Your task to perform on an android device: delete the emails in spam in the gmail app Image 0: 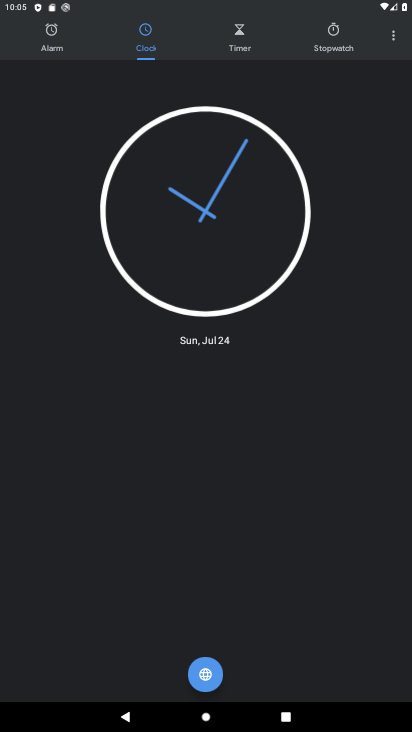
Step 0: press home button
Your task to perform on an android device: delete the emails in spam in the gmail app Image 1: 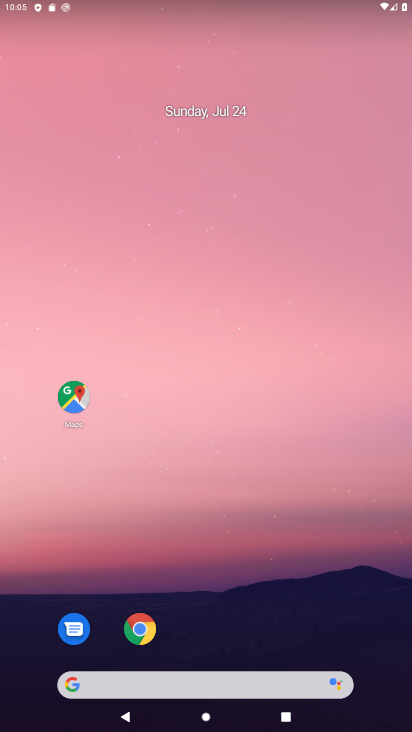
Step 1: drag from (203, 685) to (210, 115)
Your task to perform on an android device: delete the emails in spam in the gmail app Image 2: 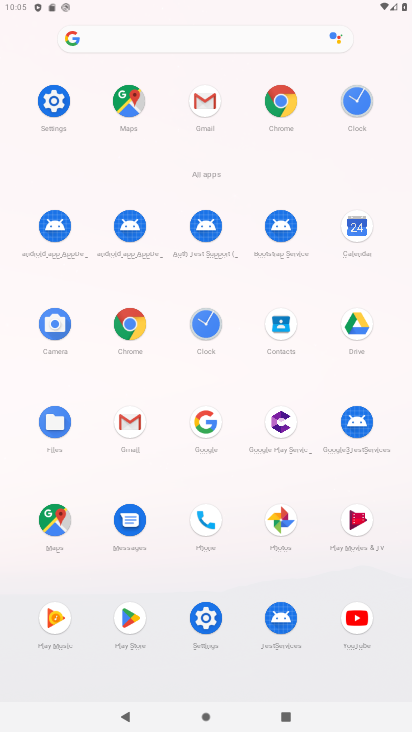
Step 2: click (131, 420)
Your task to perform on an android device: delete the emails in spam in the gmail app Image 3: 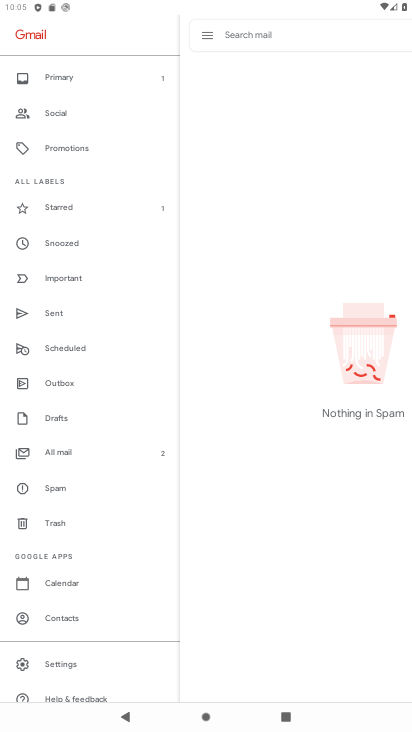
Step 3: click (65, 484)
Your task to perform on an android device: delete the emails in spam in the gmail app Image 4: 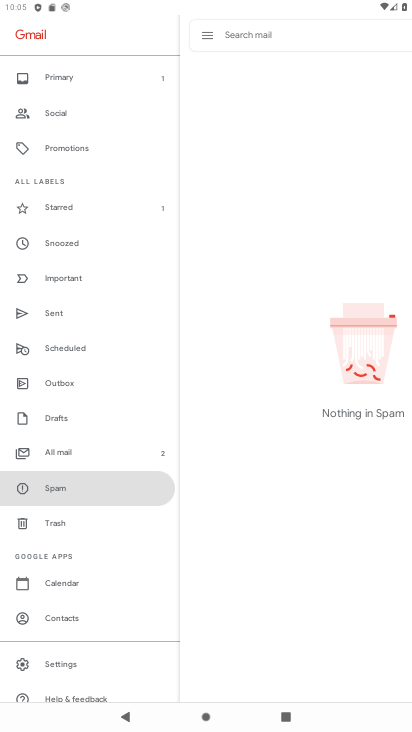
Step 4: task complete